Your task to perform on an android device: Go to calendar. Show me events next week Image 0: 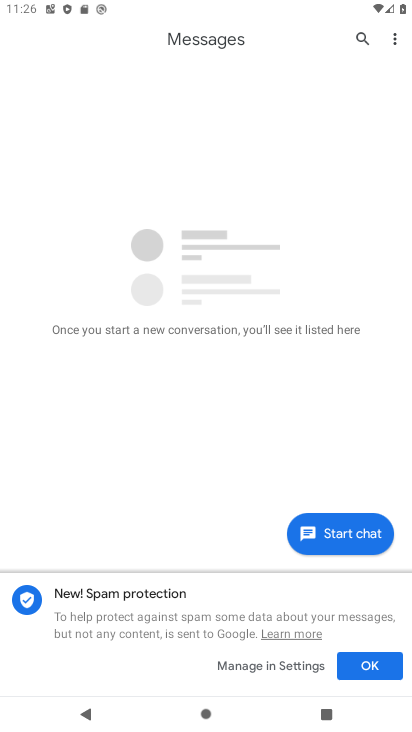
Step 0: press home button
Your task to perform on an android device: Go to calendar. Show me events next week Image 1: 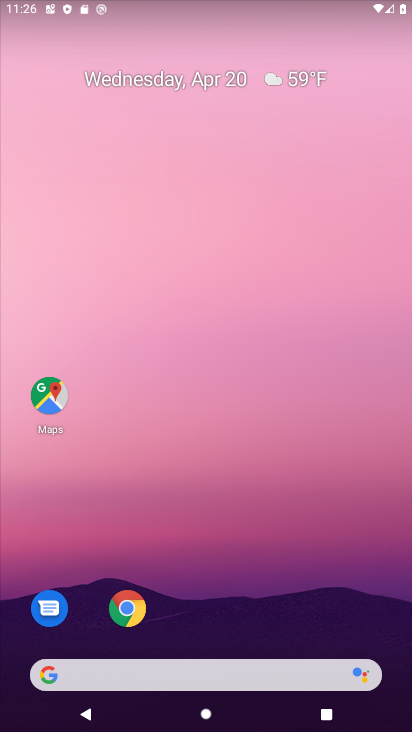
Step 1: drag from (223, 594) to (266, 125)
Your task to perform on an android device: Go to calendar. Show me events next week Image 2: 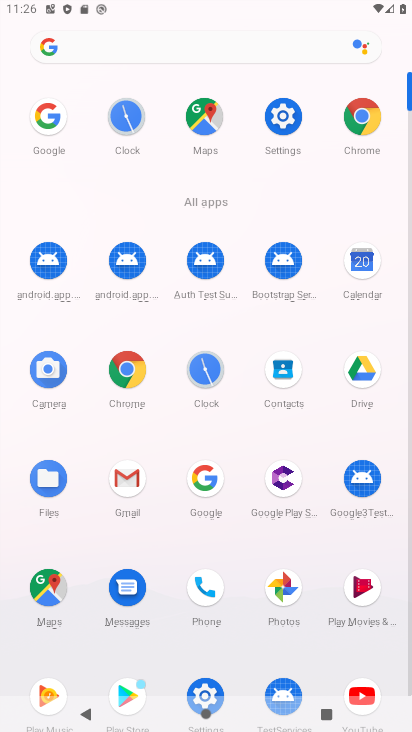
Step 2: click (366, 263)
Your task to perform on an android device: Go to calendar. Show me events next week Image 3: 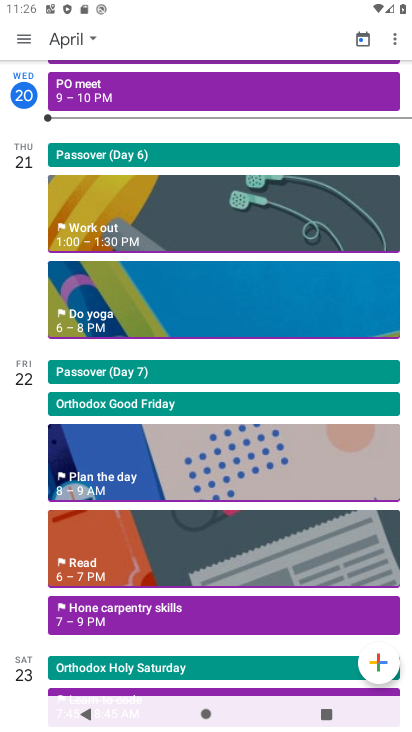
Step 3: click (89, 28)
Your task to perform on an android device: Go to calendar. Show me events next week Image 4: 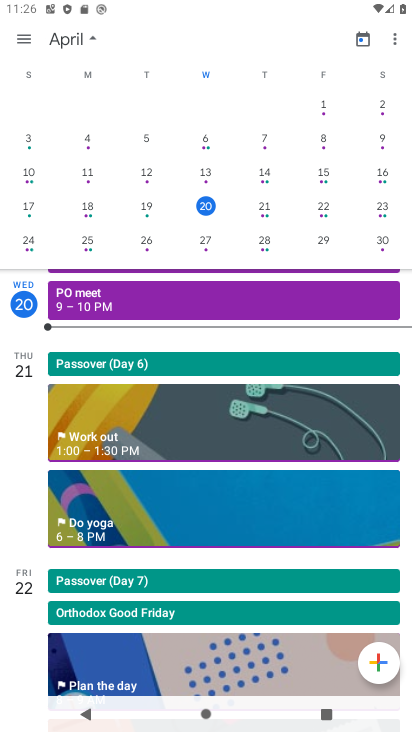
Step 4: click (373, 252)
Your task to perform on an android device: Go to calendar. Show me events next week Image 5: 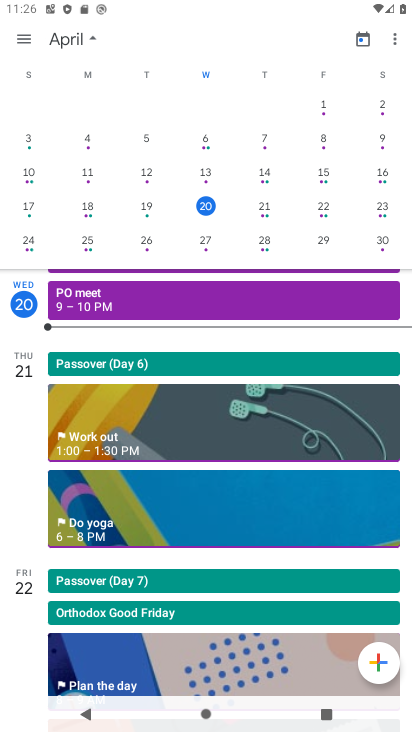
Step 5: click (267, 237)
Your task to perform on an android device: Go to calendar. Show me events next week Image 6: 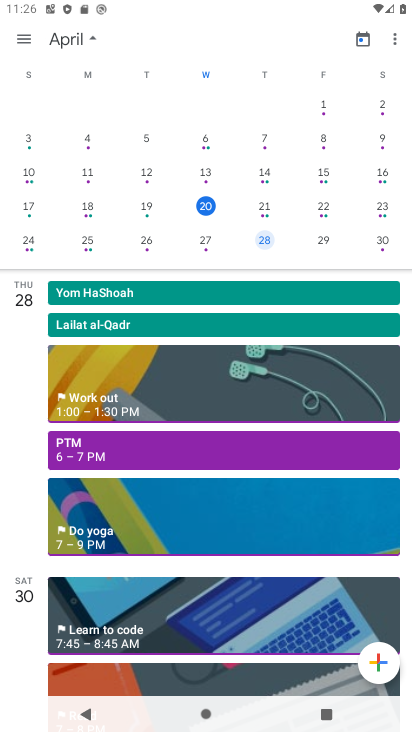
Step 6: task complete